Your task to perform on an android device: What's the weather going to be tomorrow? Image 0: 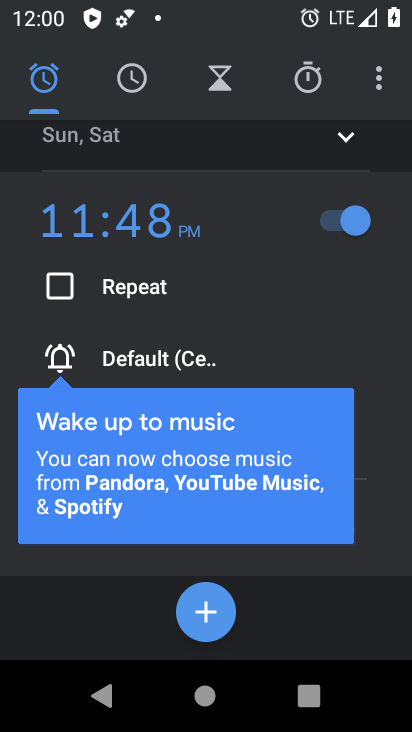
Step 0: press home button
Your task to perform on an android device: What's the weather going to be tomorrow? Image 1: 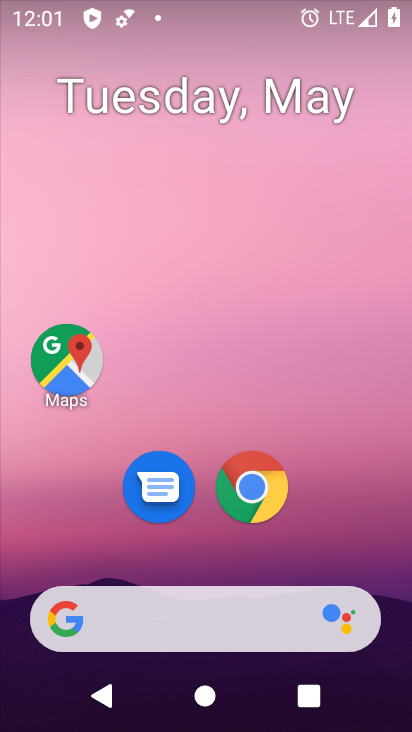
Step 1: click (185, 616)
Your task to perform on an android device: What's the weather going to be tomorrow? Image 2: 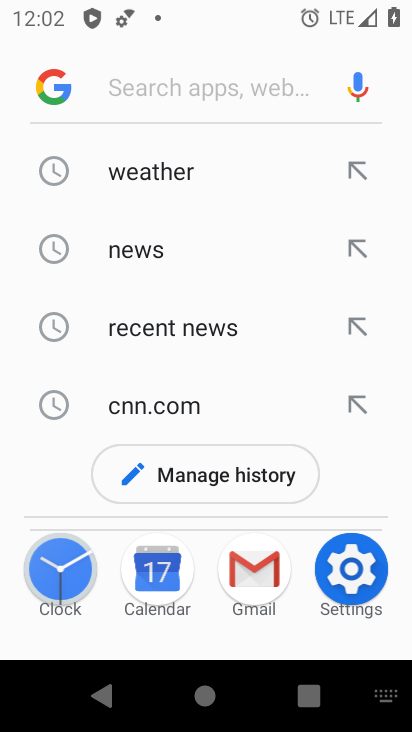
Step 2: click (151, 184)
Your task to perform on an android device: What's the weather going to be tomorrow? Image 3: 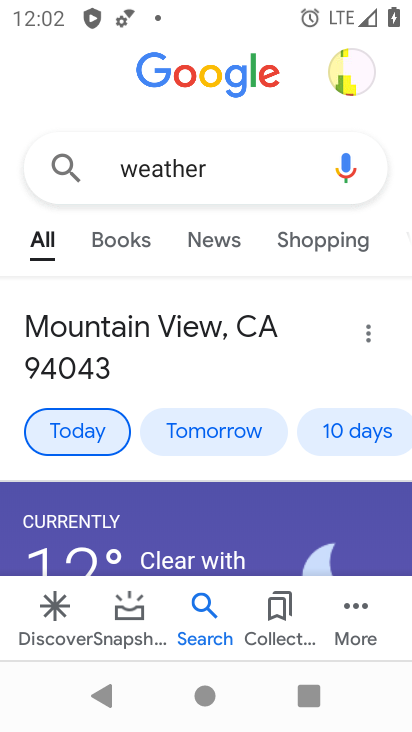
Step 3: click (199, 439)
Your task to perform on an android device: What's the weather going to be tomorrow? Image 4: 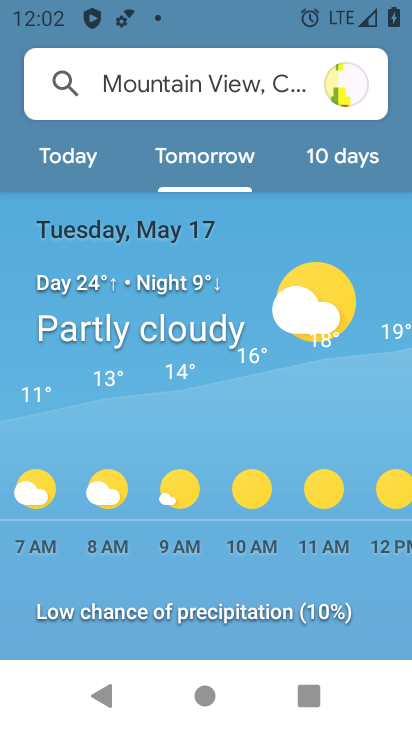
Step 4: task complete